Your task to perform on an android device: check data usage Image 0: 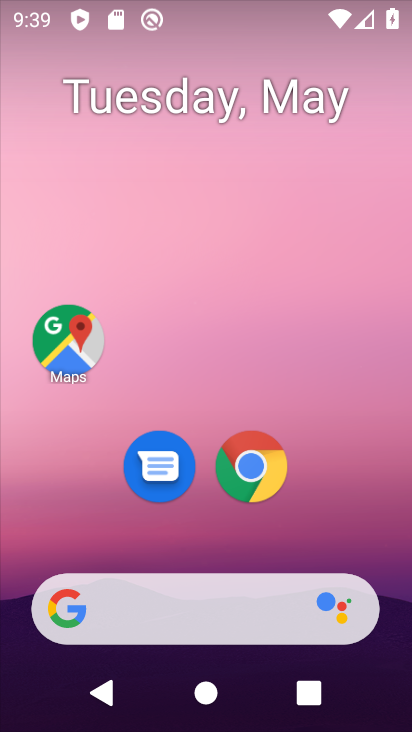
Step 0: drag from (97, 560) to (238, 98)
Your task to perform on an android device: check data usage Image 1: 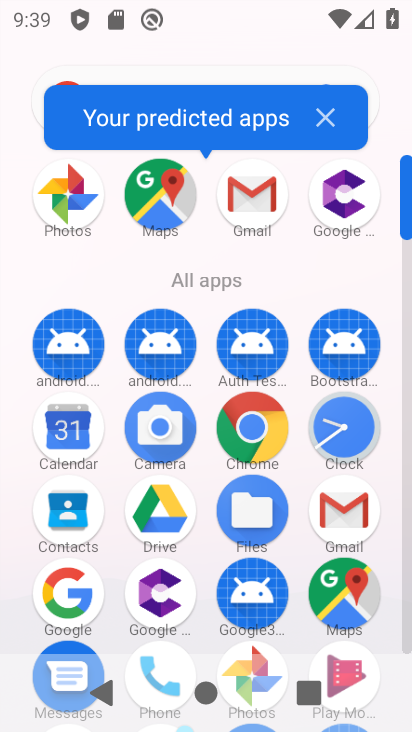
Step 1: drag from (97, 584) to (204, 202)
Your task to perform on an android device: check data usage Image 2: 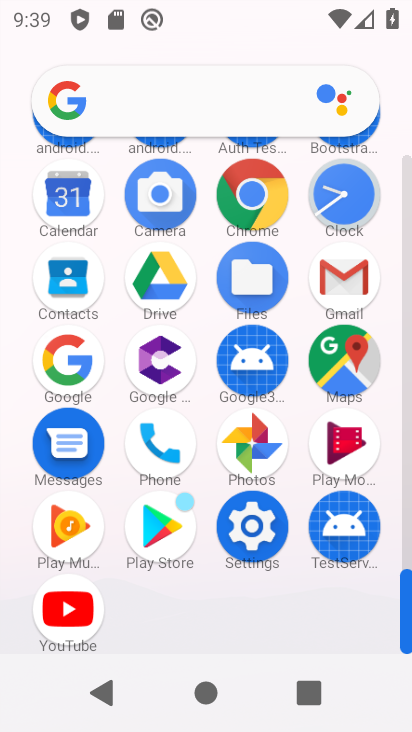
Step 2: click (244, 526)
Your task to perform on an android device: check data usage Image 3: 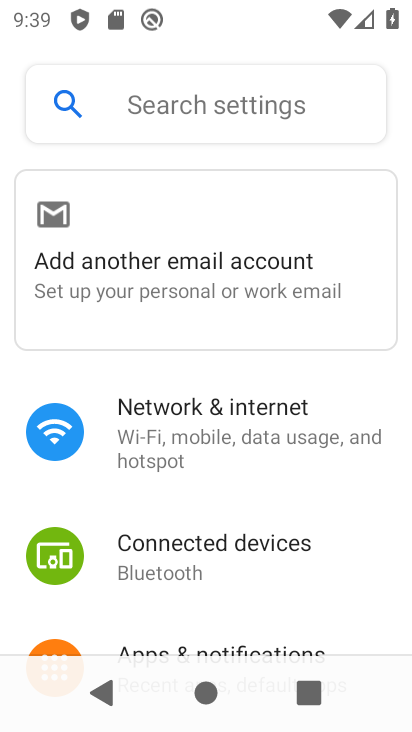
Step 3: drag from (159, 625) to (262, 326)
Your task to perform on an android device: check data usage Image 4: 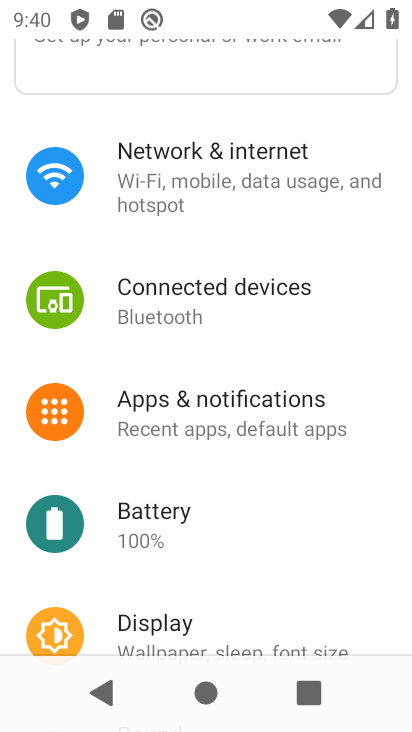
Step 4: click (218, 181)
Your task to perform on an android device: check data usage Image 5: 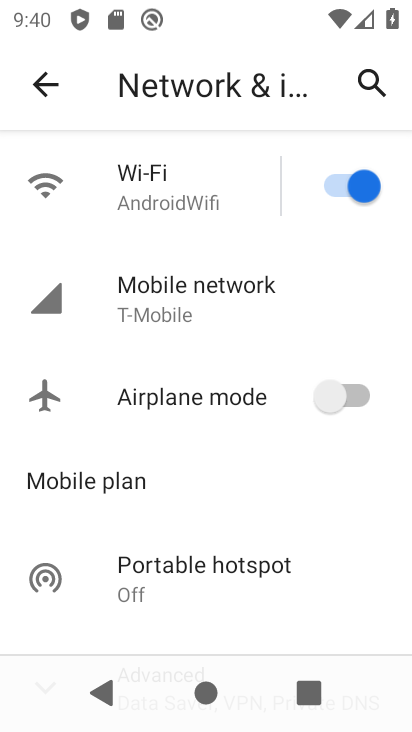
Step 5: click (223, 283)
Your task to perform on an android device: check data usage Image 6: 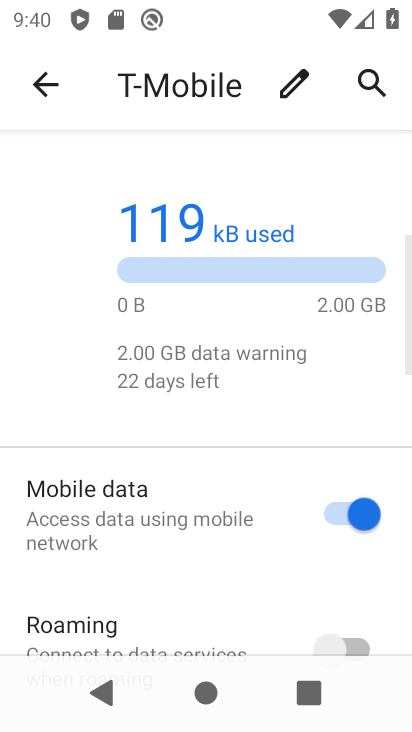
Step 6: drag from (140, 557) to (231, 190)
Your task to perform on an android device: check data usage Image 7: 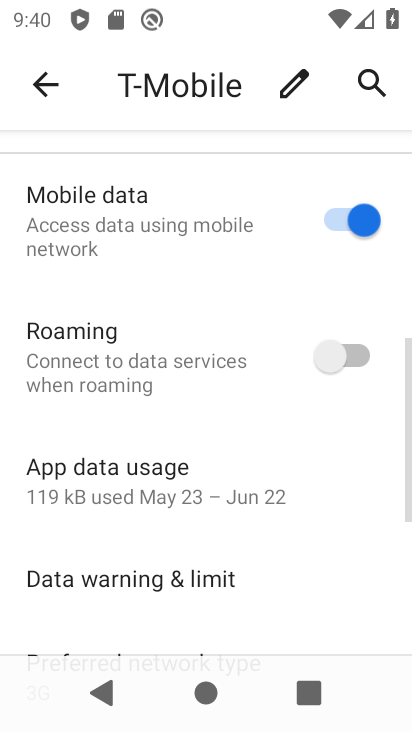
Step 7: click (178, 487)
Your task to perform on an android device: check data usage Image 8: 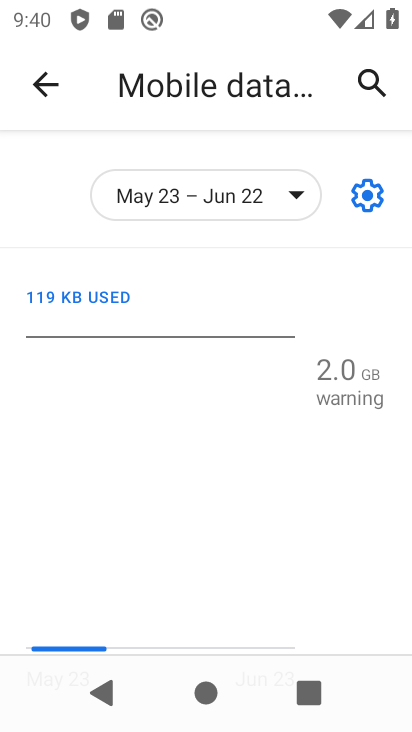
Step 8: task complete